Your task to perform on an android device: Open CNN.com Image 0: 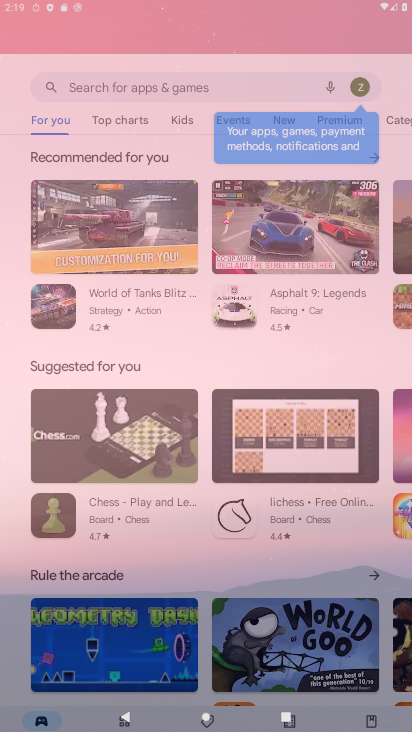
Step 0: click (209, 179)
Your task to perform on an android device: Open CNN.com Image 1: 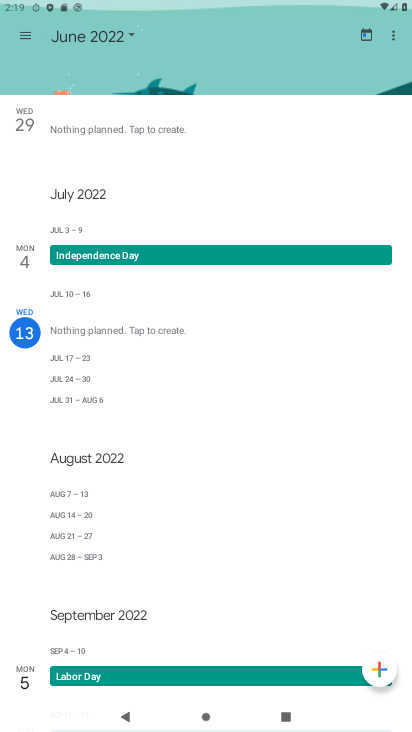
Step 1: press home button
Your task to perform on an android device: Open CNN.com Image 2: 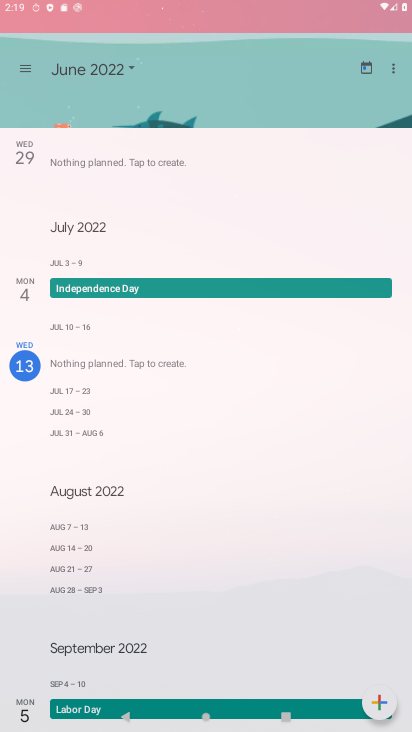
Step 2: drag from (188, 341) to (199, 202)
Your task to perform on an android device: Open CNN.com Image 3: 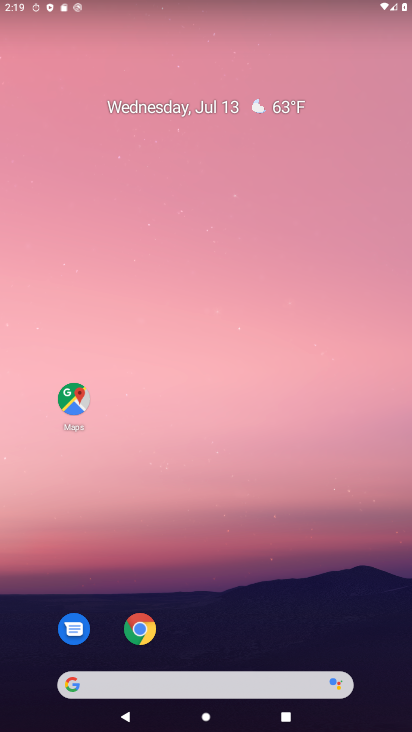
Step 3: drag from (172, 614) to (153, 137)
Your task to perform on an android device: Open CNN.com Image 4: 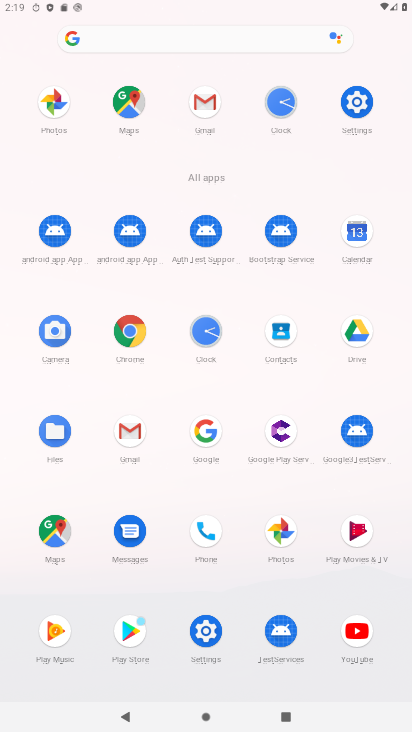
Step 4: click (153, 27)
Your task to perform on an android device: Open CNN.com Image 5: 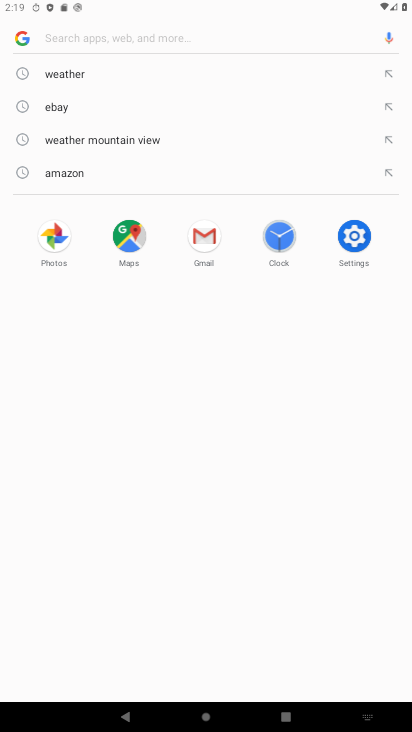
Step 5: type "cnn.com"
Your task to perform on an android device: Open CNN.com Image 6: 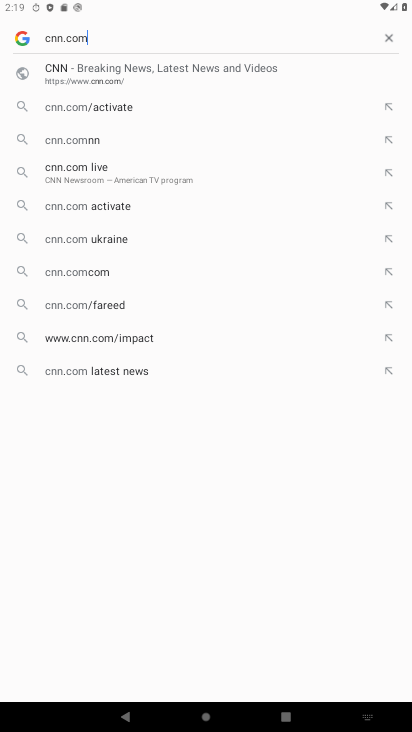
Step 6: click (109, 108)
Your task to perform on an android device: Open CNN.com Image 7: 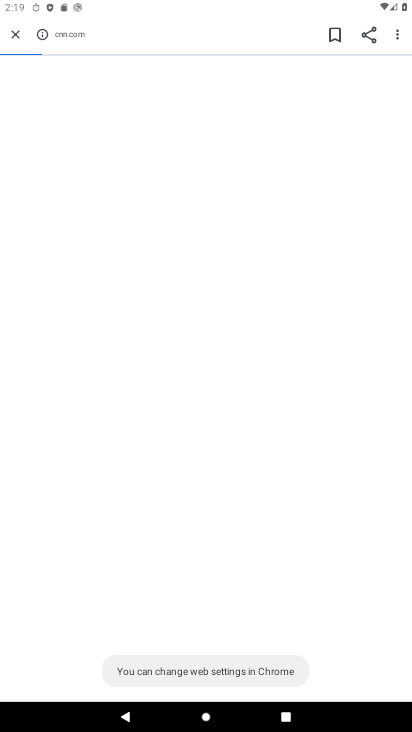
Step 7: task complete